Your task to perform on an android device: turn off priority inbox in the gmail app Image 0: 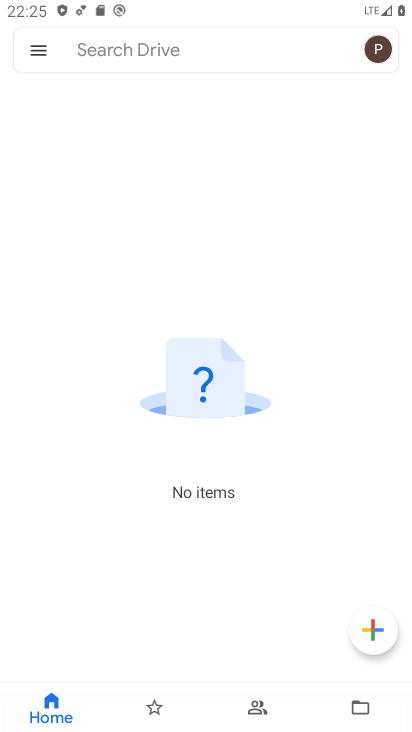
Step 0: press back button
Your task to perform on an android device: turn off priority inbox in the gmail app Image 1: 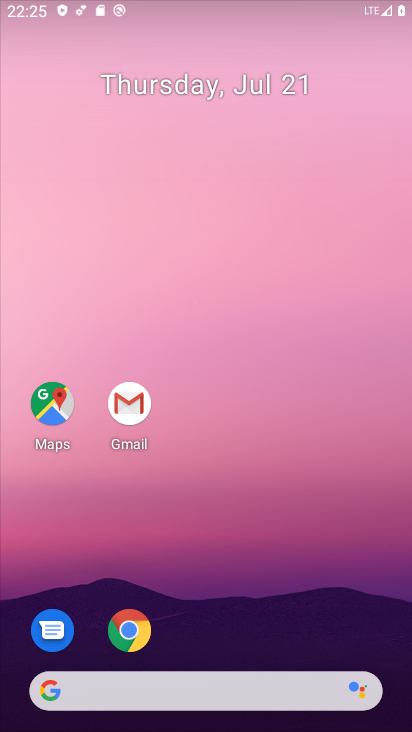
Step 1: drag from (223, 683) to (266, 149)
Your task to perform on an android device: turn off priority inbox in the gmail app Image 2: 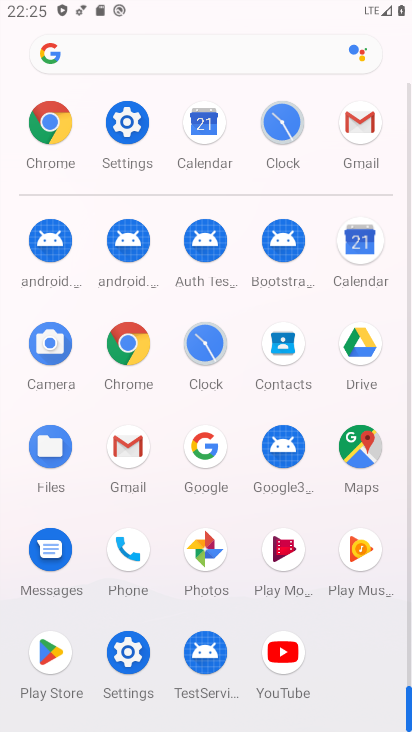
Step 2: click (284, 657)
Your task to perform on an android device: turn off priority inbox in the gmail app Image 3: 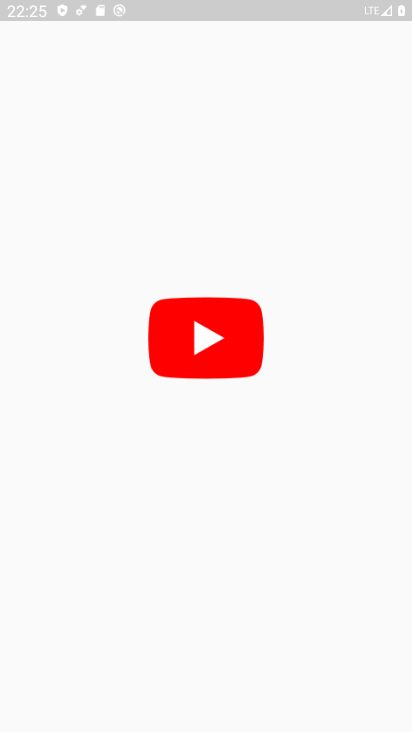
Step 3: press back button
Your task to perform on an android device: turn off priority inbox in the gmail app Image 4: 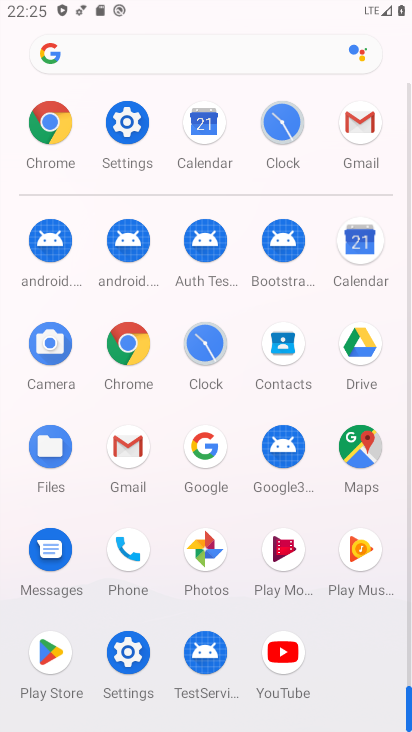
Step 4: click (124, 450)
Your task to perform on an android device: turn off priority inbox in the gmail app Image 5: 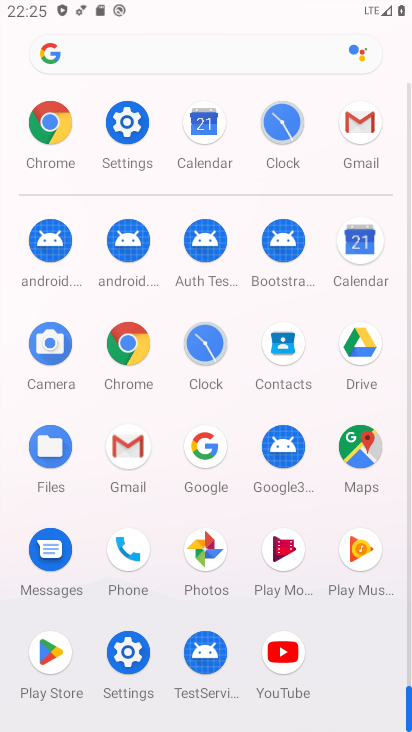
Step 5: click (125, 450)
Your task to perform on an android device: turn off priority inbox in the gmail app Image 6: 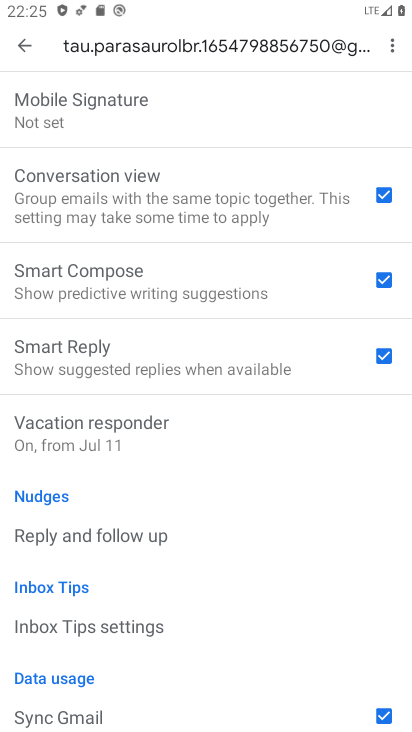
Step 6: drag from (69, 193) to (76, 633)
Your task to perform on an android device: turn off priority inbox in the gmail app Image 7: 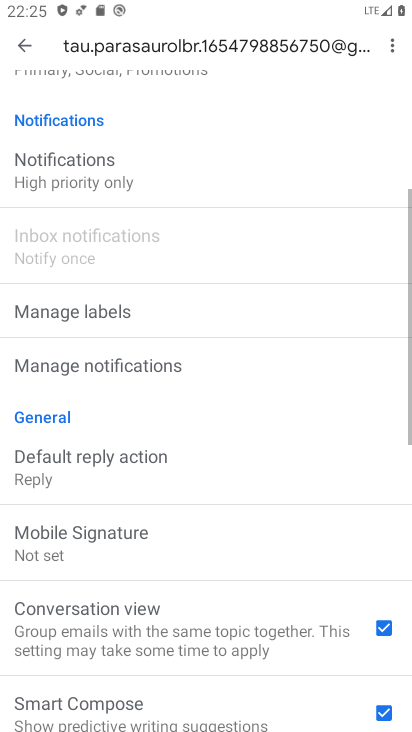
Step 7: drag from (60, 301) to (80, 571)
Your task to perform on an android device: turn off priority inbox in the gmail app Image 8: 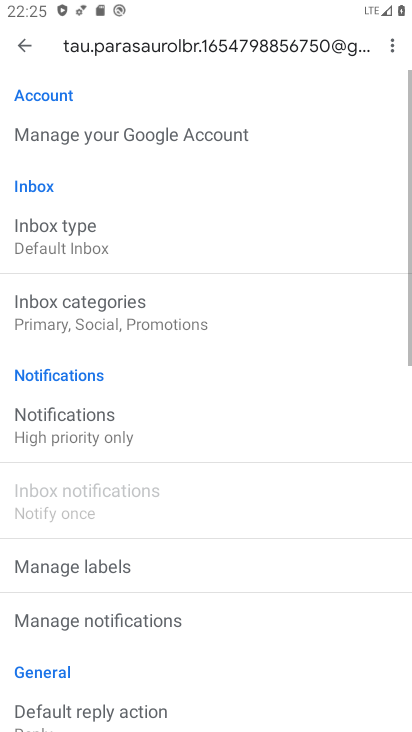
Step 8: drag from (117, 237) to (152, 681)
Your task to perform on an android device: turn off priority inbox in the gmail app Image 9: 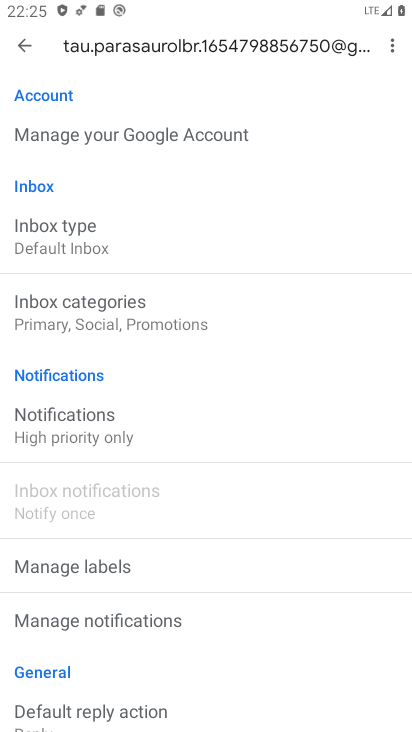
Step 9: click (66, 242)
Your task to perform on an android device: turn off priority inbox in the gmail app Image 10: 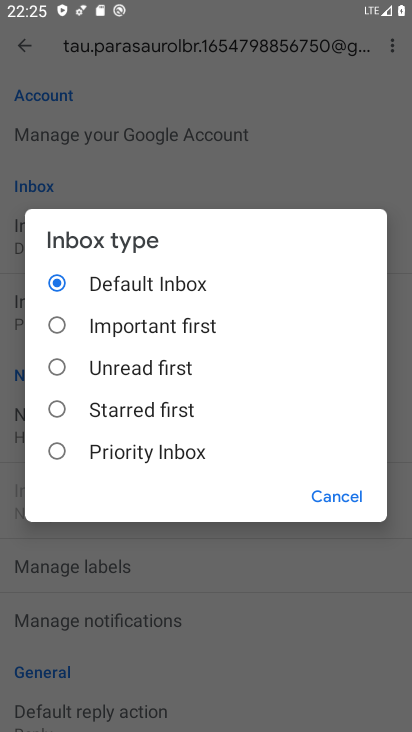
Step 10: click (35, 445)
Your task to perform on an android device: turn off priority inbox in the gmail app Image 11: 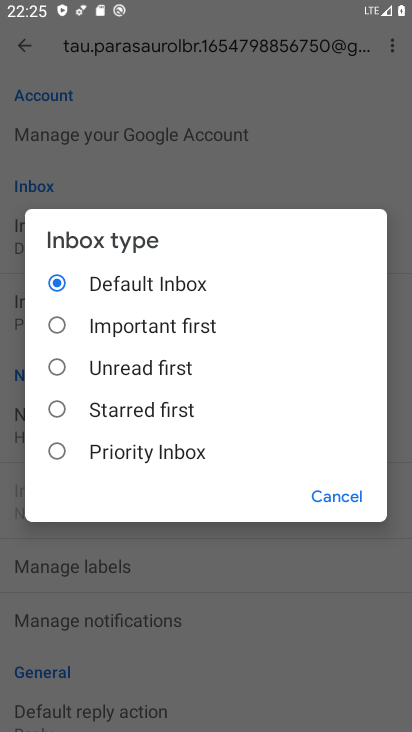
Step 11: click (352, 503)
Your task to perform on an android device: turn off priority inbox in the gmail app Image 12: 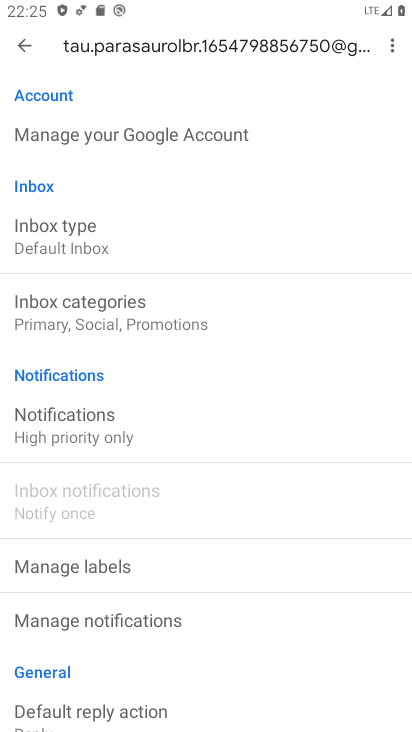
Step 12: task complete